Your task to perform on an android device: check android version Image 0: 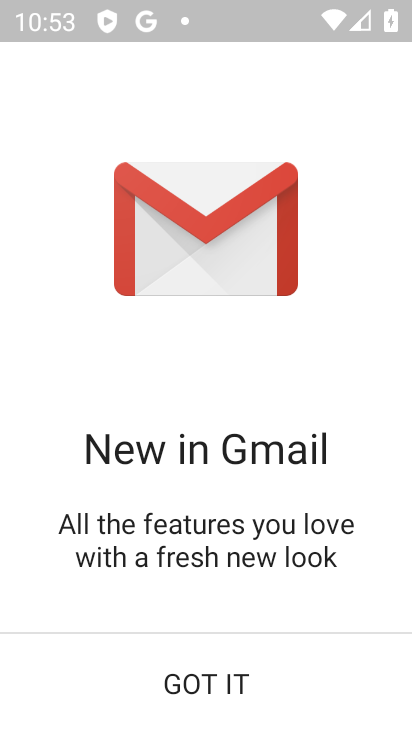
Step 0: press home button
Your task to perform on an android device: check android version Image 1: 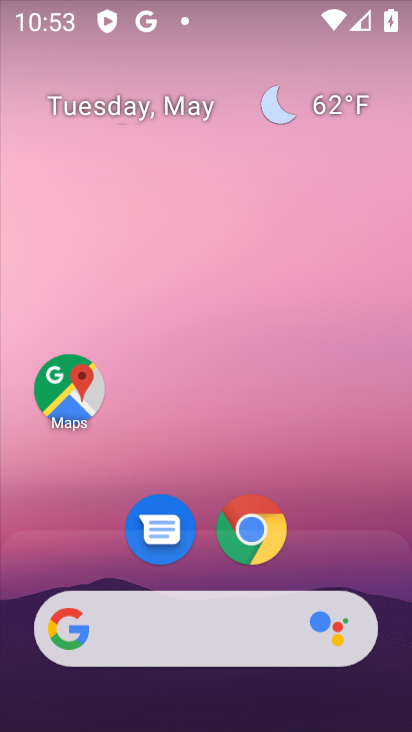
Step 1: drag from (164, 730) to (175, 159)
Your task to perform on an android device: check android version Image 2: 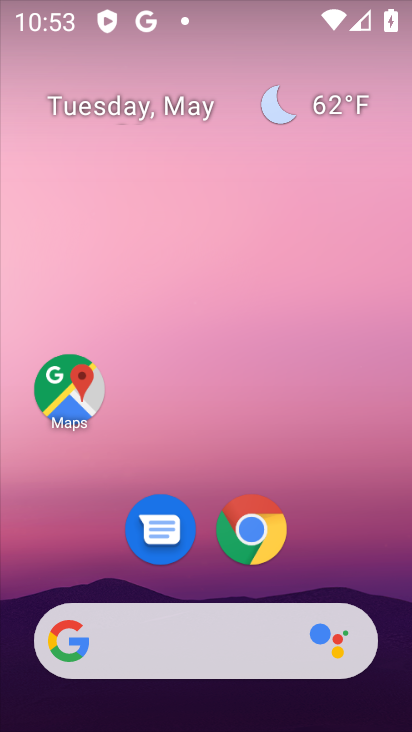
Step 2: drag from (160, 726) to (193, 19)
Your task to perform on an android device: check android version Image 3: 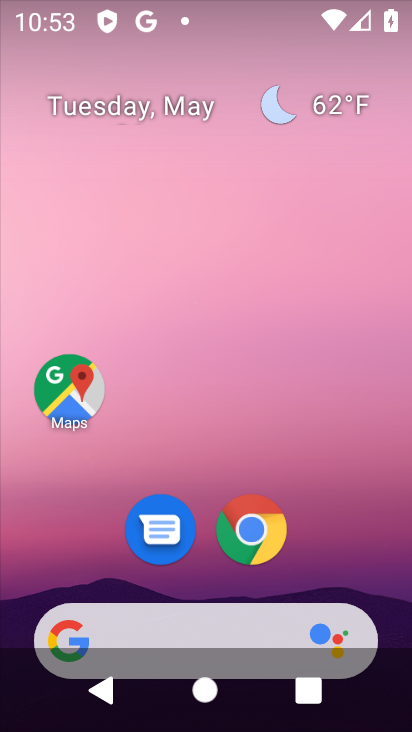
Step 3: drag from (155, 728) to (186, 54)
Your task to perform on an android device: check android version Image 4: 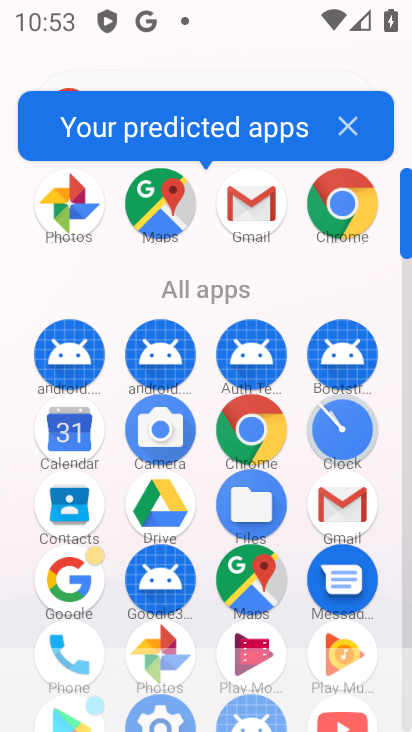
Step 4: drag from (105, 428) to (110, 132)
Your task to perform on an android device: check android version Image 5: 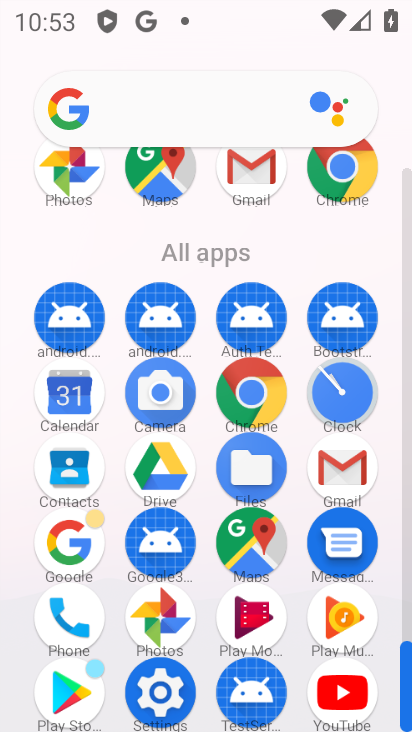
Step 5: click (156, 692)
Your task to perform on an android device: check android version Image 6: 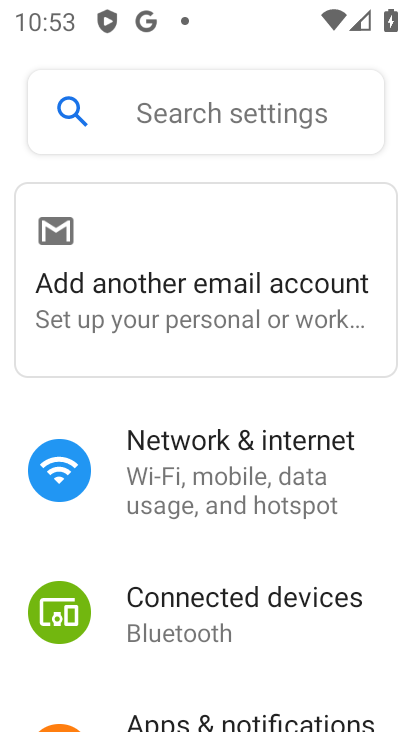
Step 6: drag from (334, 663) to (341, 139)
Your task to perform on an android device: check android version Image 7: 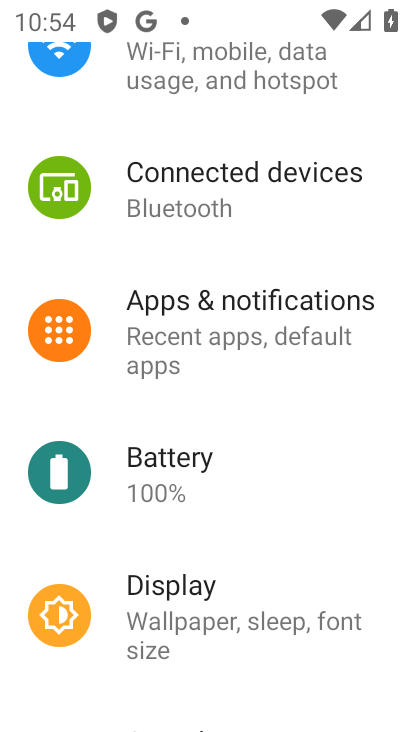
Step 7: drag from (308, 667) to (335, 200)
Your task to perform on an android device: check android version Image 8: 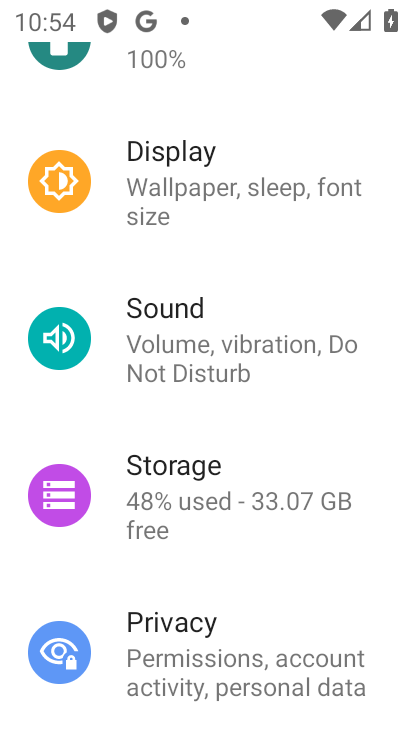
Step 8: drag from (279, 622) to (297, 157)
Your task to perform on an android device: check android version Image 9: 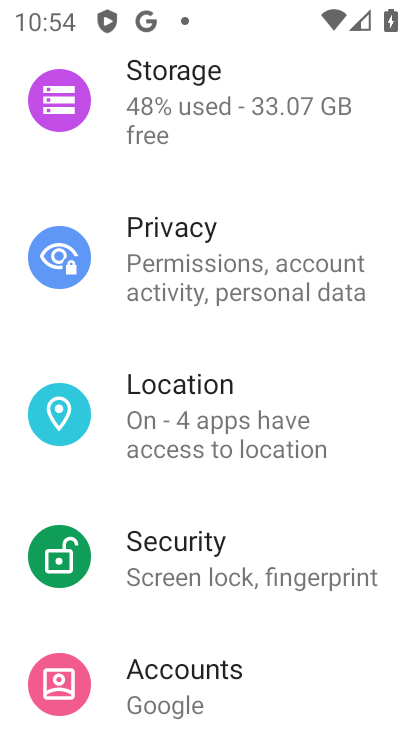
Step 9: drag from (276, 682) to (344, 124)
Your task to perform on an android device: check android version Image 10: 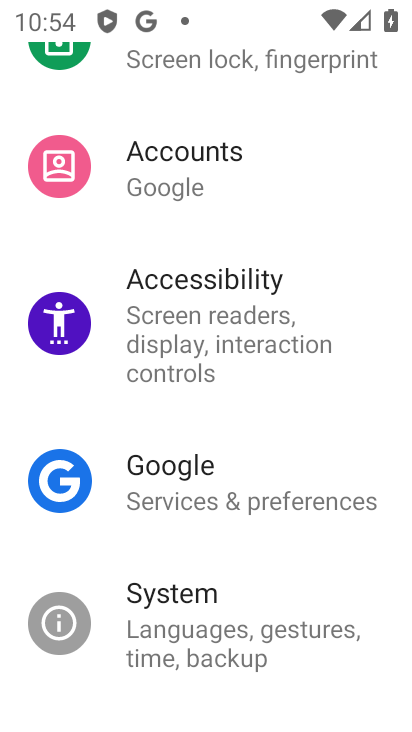
Step 10: drag from (321, 668) to (313, 327)
Your task to perform on an android device: check android version Image 11: 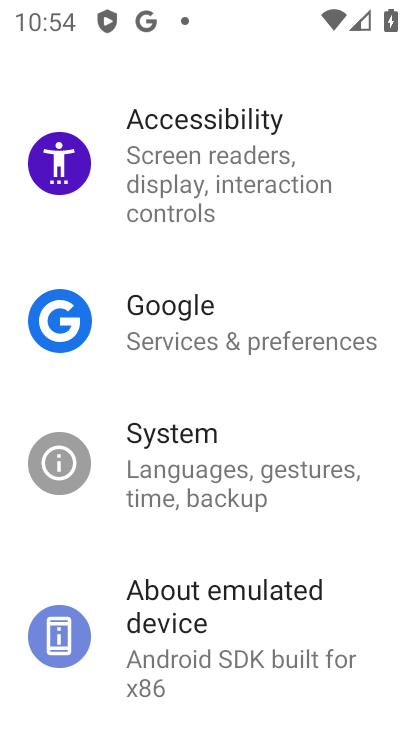
Step 11: click (212, 673)
Your task to perform on an android device: check android version Image 12: 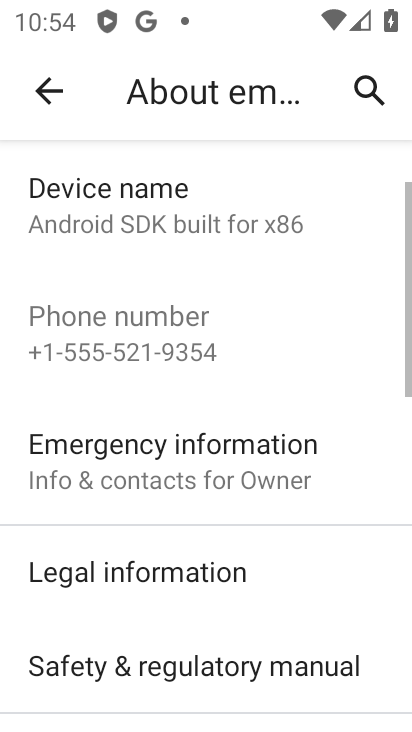
Step 12: drag from (238, 624) to (296, 184)
Your task to perform on an android device: check android version Image 13: 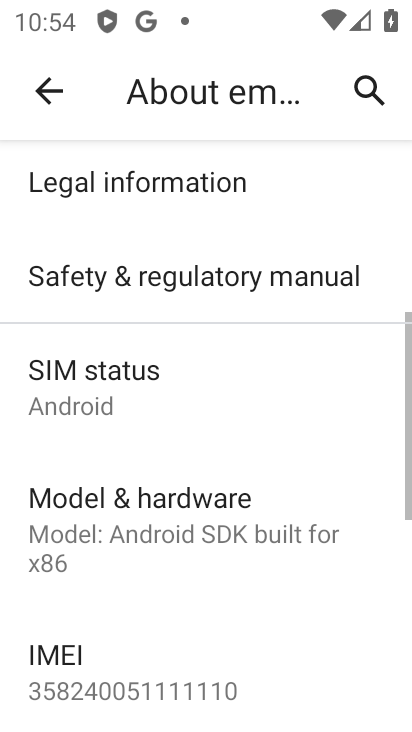
Step 13: drag from (261, 610) to (243, 343)
Your task to perform on an android device: check android version Image 14: 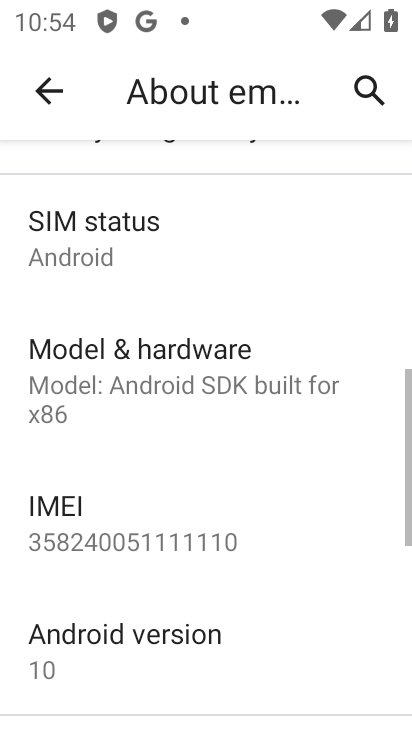
Step 14: click (135, 680)
Your task to perform on an android device: check android version Image 15: 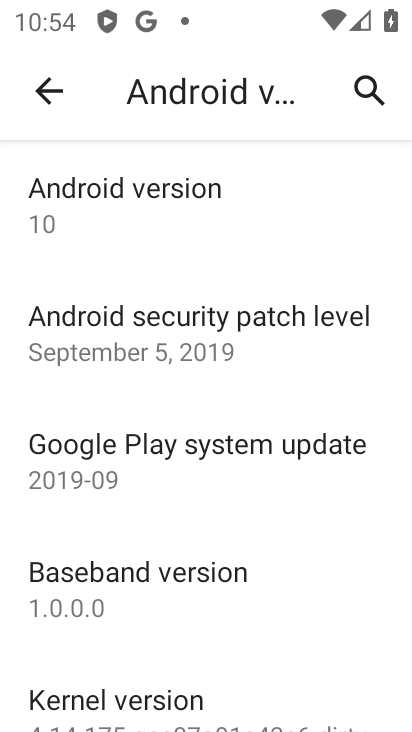
Step 15: task complete